Your task to perform on an android device: Open ESPN.com Image 0: 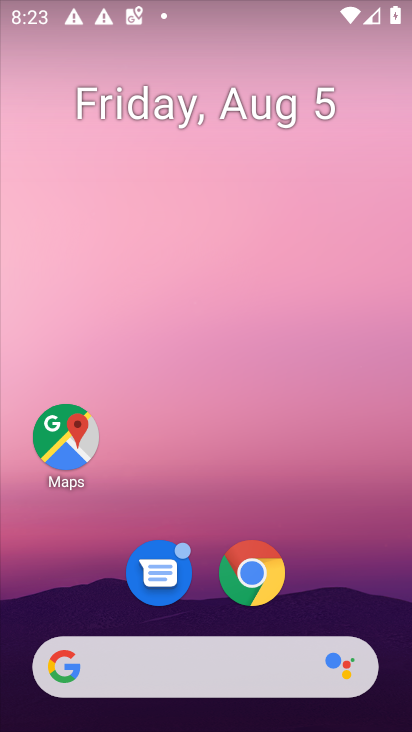
Step 0: click (256, 573)
Your task to perform on an android device: Open ESPN.com Image 1: 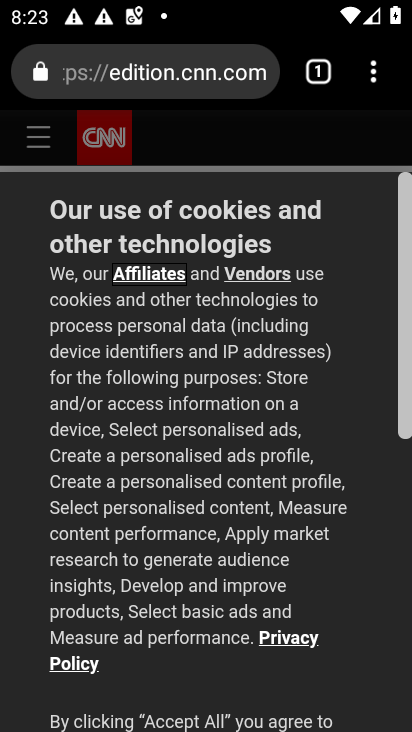
Step 1: click (274, 83)
Your task to perform on an android device: Open ESPN.com Image 2: 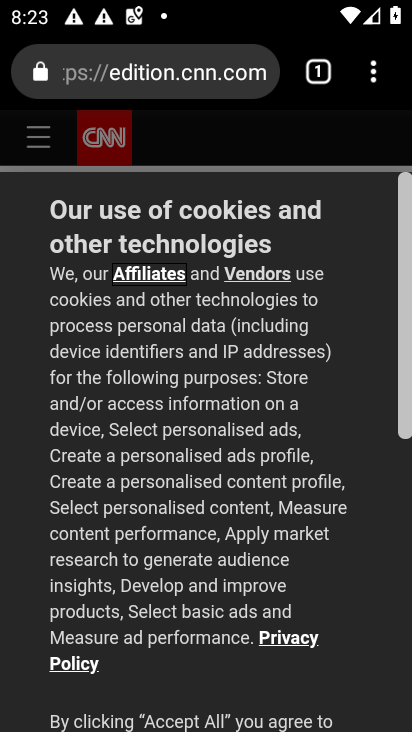
Step 2: click (261, 78)
Your task to perform on an android device: Open ESPN.com Image 3: 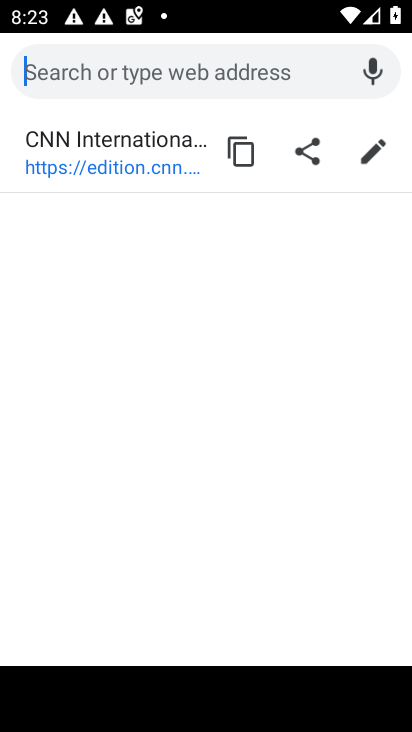
Step 3: type "ESPN.com"
Your task to perform on an android device: Open ESPN.com Image 4: 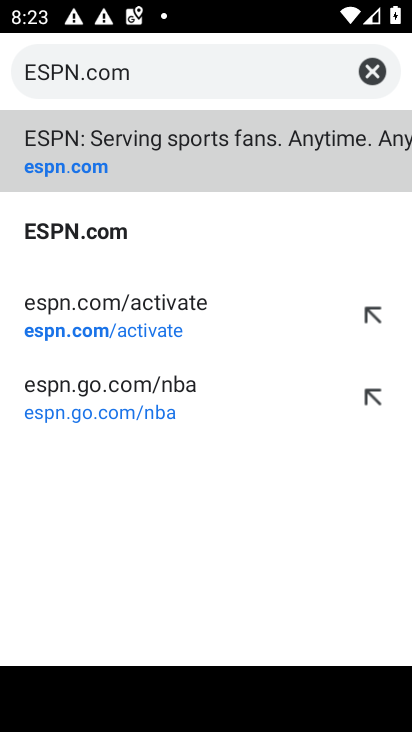
Step 4: click (108, 230)
Your task to perform on an android device: Open ESPN.com Image 5: 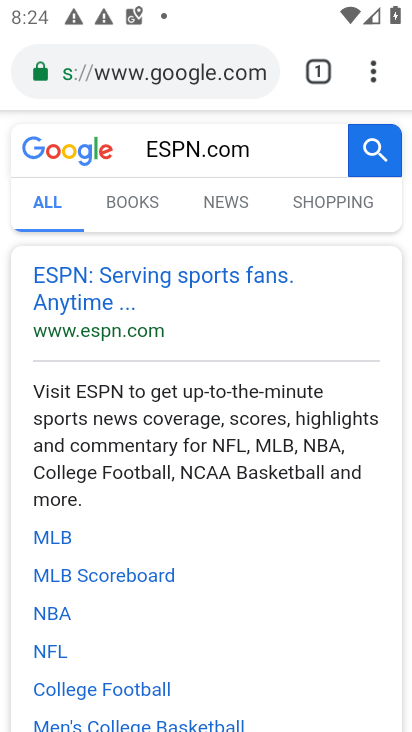
Step 5: click (175, 276)
Your task to perform on an android device: Open ESPN.com Image 6: 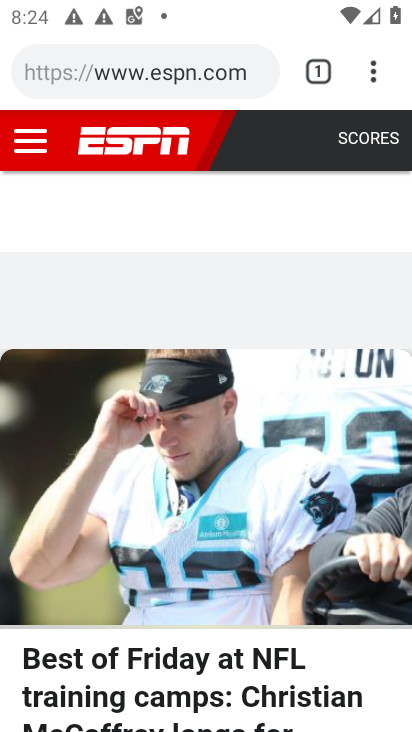
Step 6: task complete